Your task to perform on an android device: Open Reddit.com Image 0: 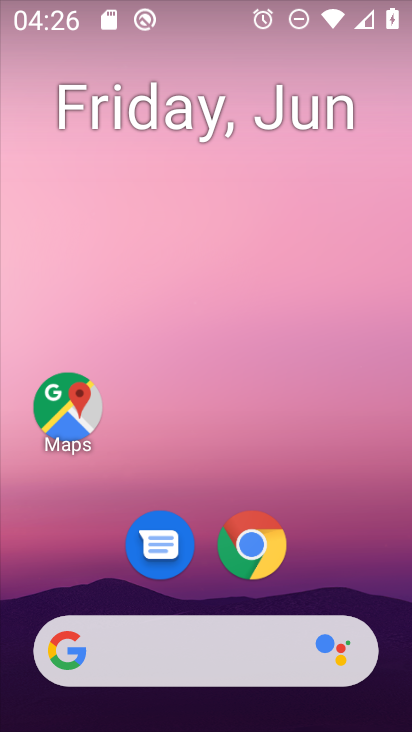
Step 0: click (244, 540)
Your task to perform on an android device: Open Reddit.com Image 1: 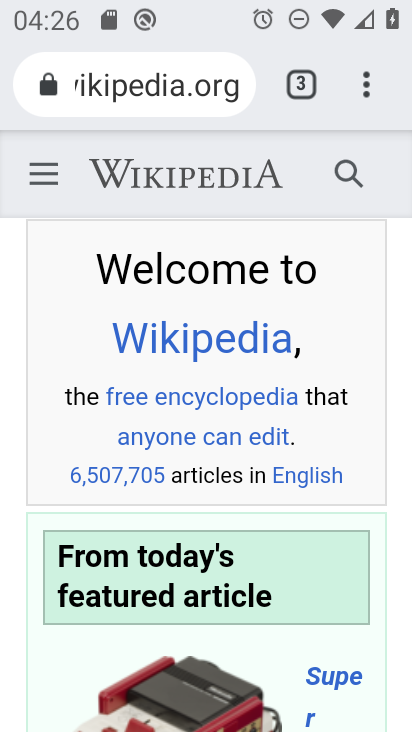
Step 1: click (198, 74)
Your task to perform on an android device: Open Reddit.com Image 2: 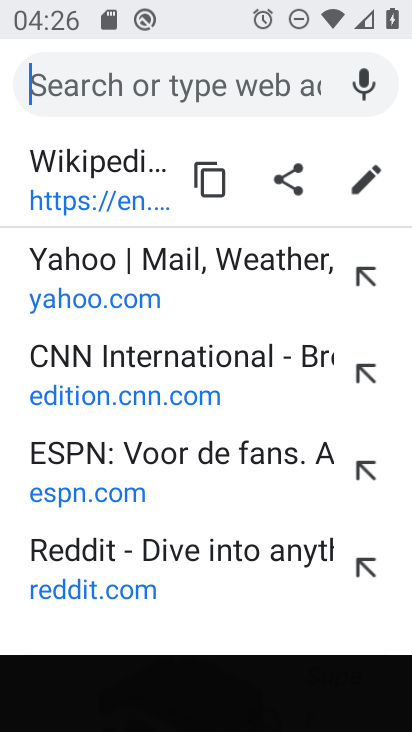
Step 2: type "Reddit.com"
Your task to perform on an android device: Open Reddit.com Image 3: 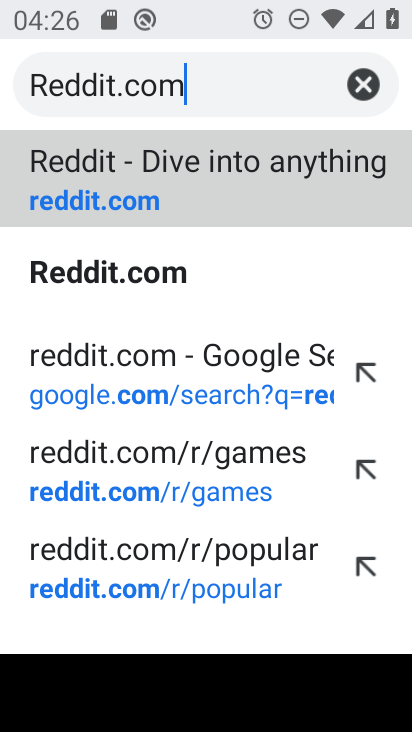
Step 3: click (60, 180)
Your task to perform on an android device: Open Reddit.com Image 4: 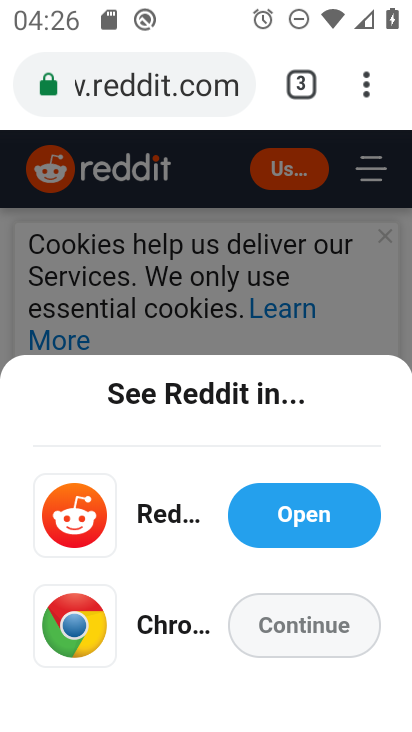
Step 4: task complete